Your task to perform on an android device: Search for "bose soundlink" on target, select the first entry, and add it to the cart. Image 0: 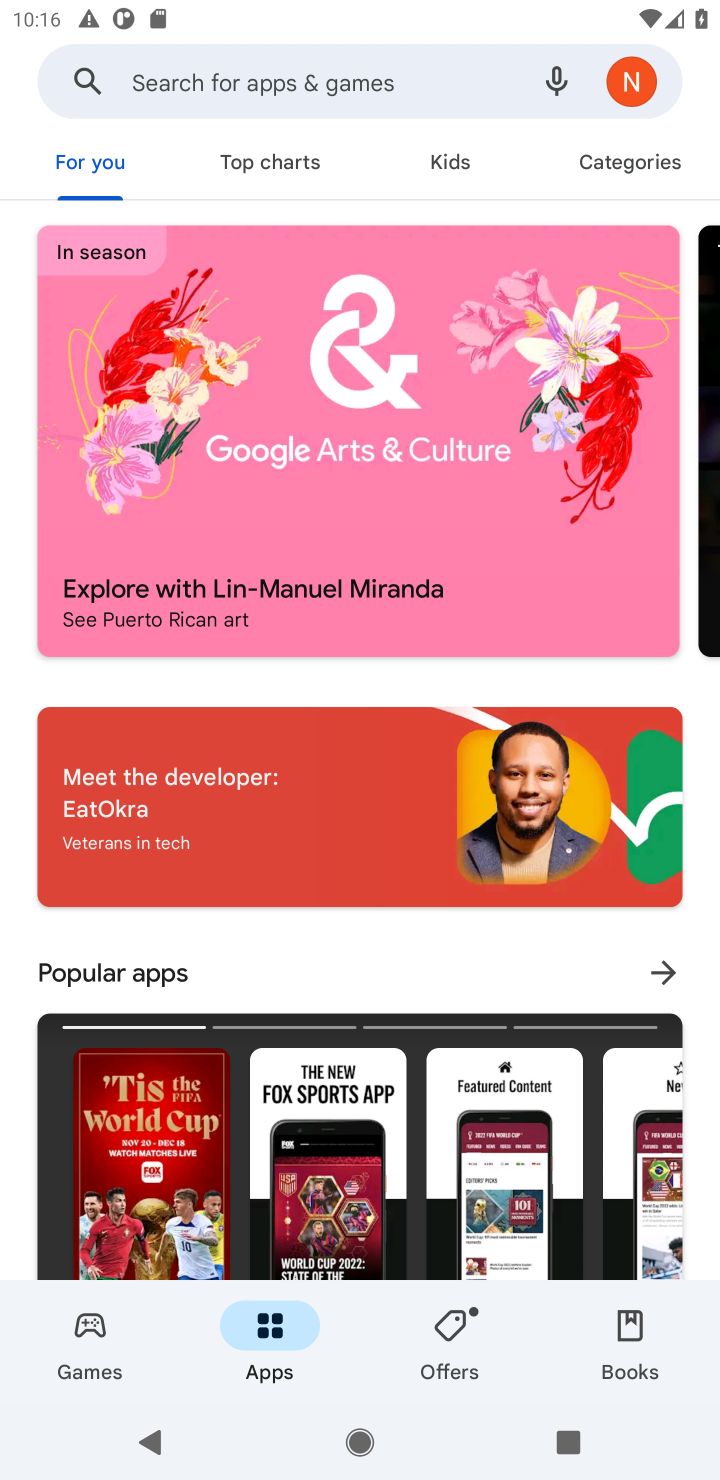
Step 0: press home button
Your task to perform on an android device: Search for "bose soundlink" on target, select the first entry, and add it to the cart. Image 1: 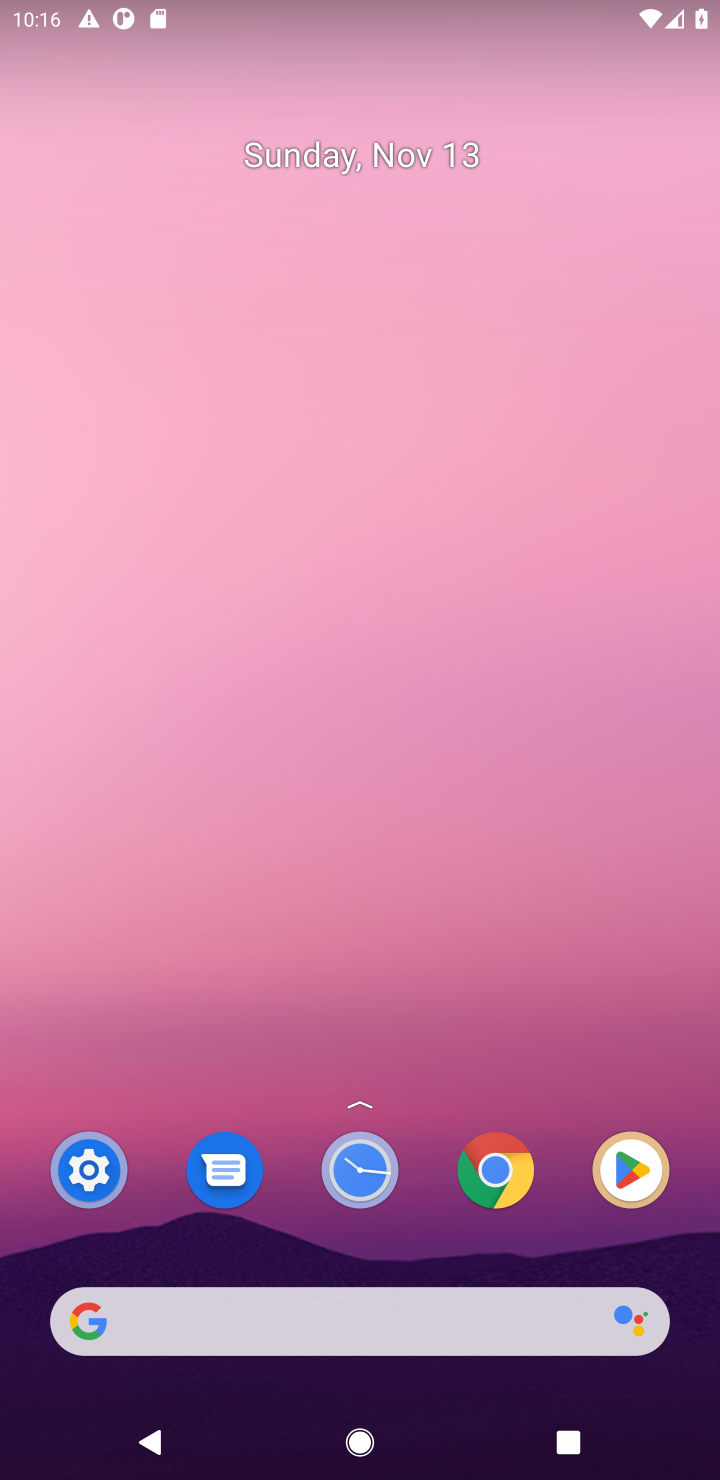
Step 1: click (197, 1310)
Your task to perform on an android device: Search for "bose soundlink" on target, select the first entry, and add it to the cart. Image 2: 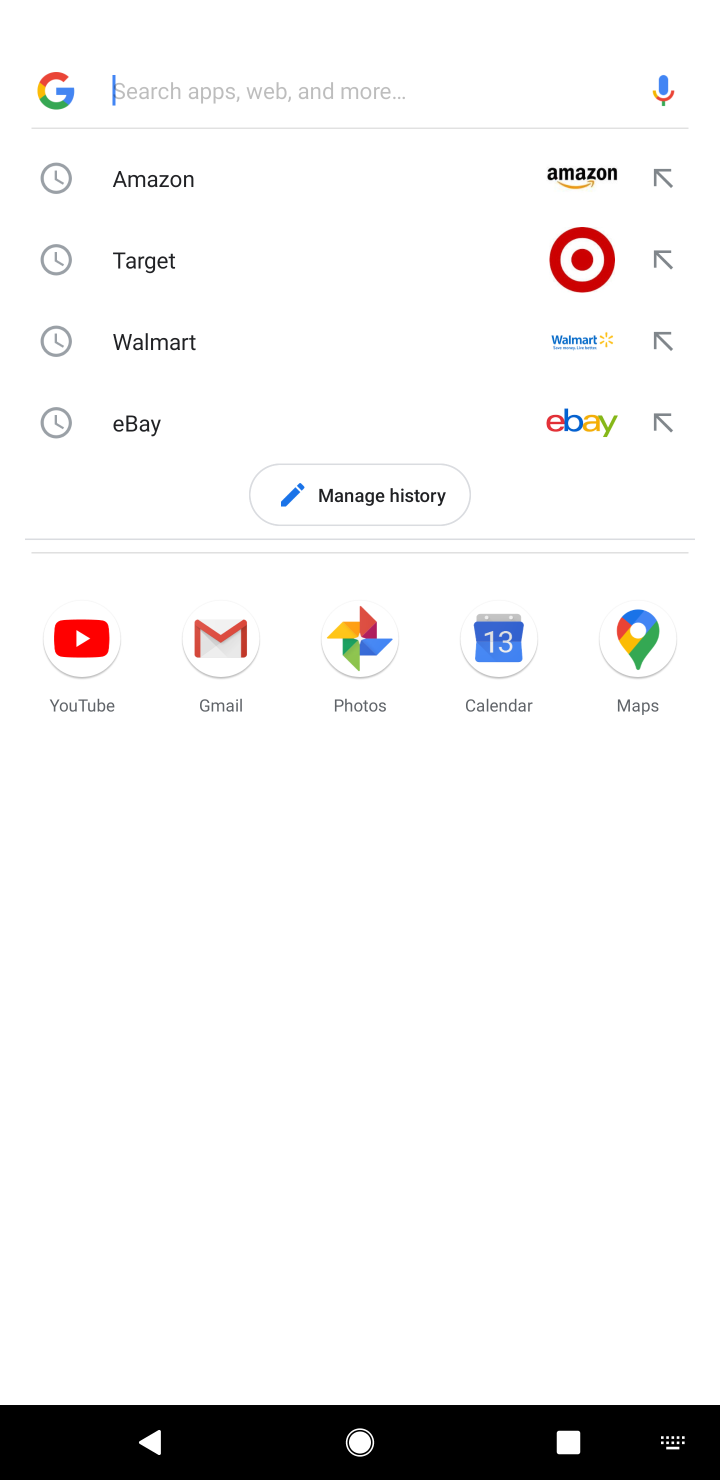
Step 2: type "target.com"
Your task to perform on an android device: Search for "bose soundlink" on target, select the first entry, and add it to the cart. Image 3: 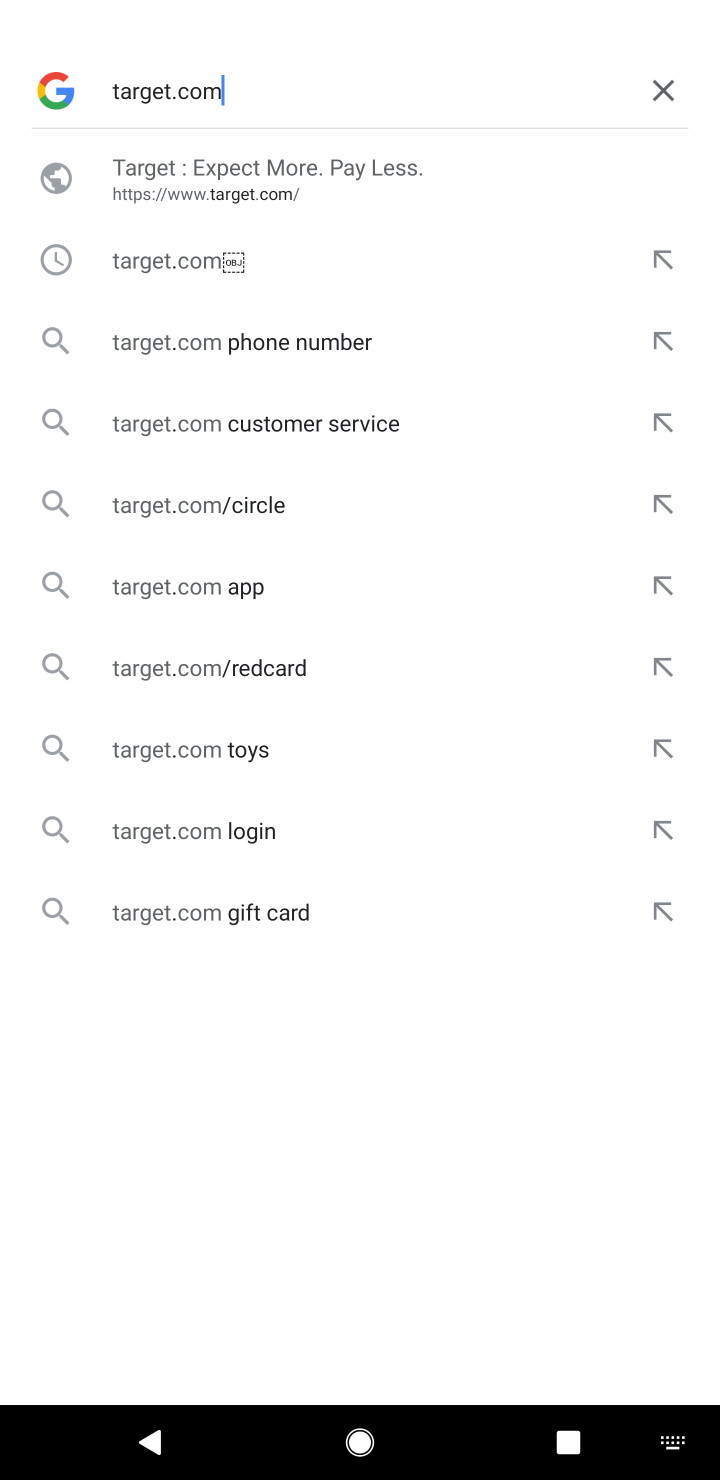
Step 3: click (174, 212)
Your task to perform on an android device: Search for "bose soundlink" on target, select the first entry, and add it to the cart. Image 4: 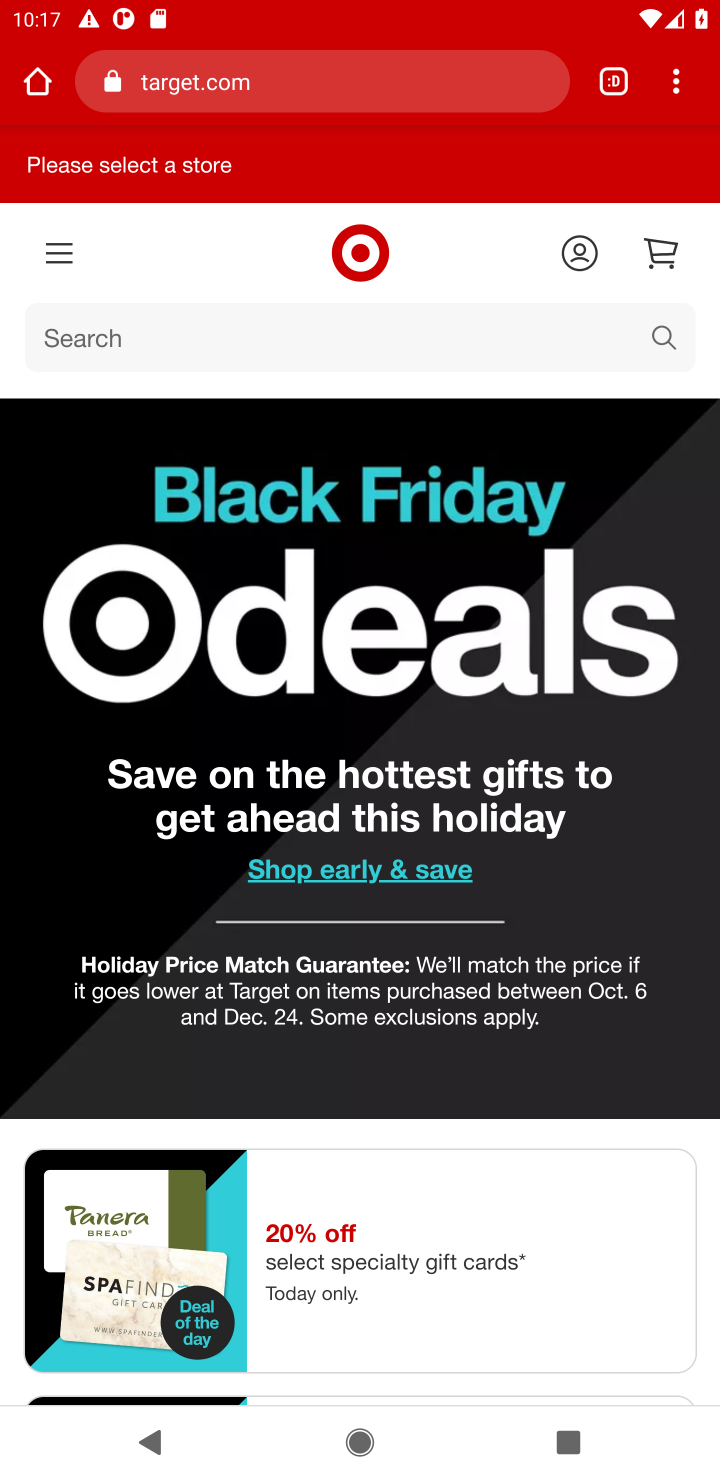
Step 4: task complete